Your task to perform on an android device: change the upload size in google photos Image 0: 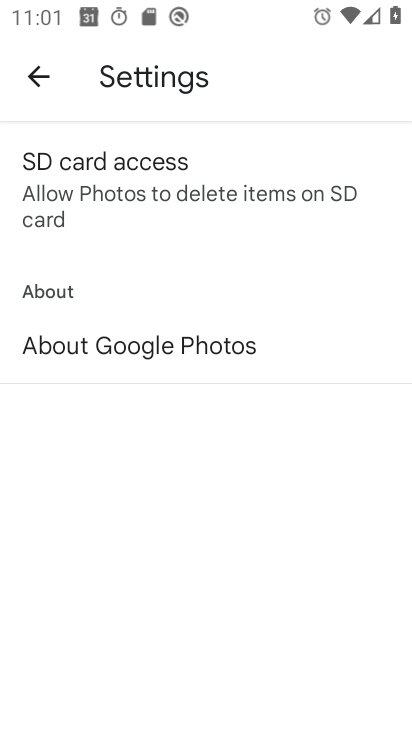
Step 0: click (28, 79)
Your task to perform on an android device: change the upload size in google photos Image 1: 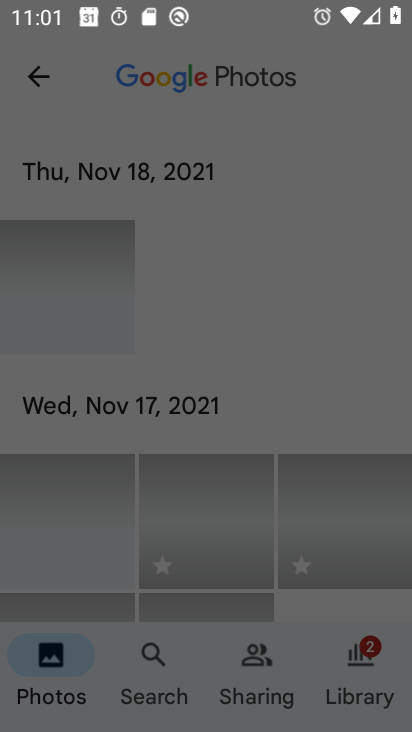
Step 1: press home button
Your task to perform on an android device: change the upload size in google photos Image 2: 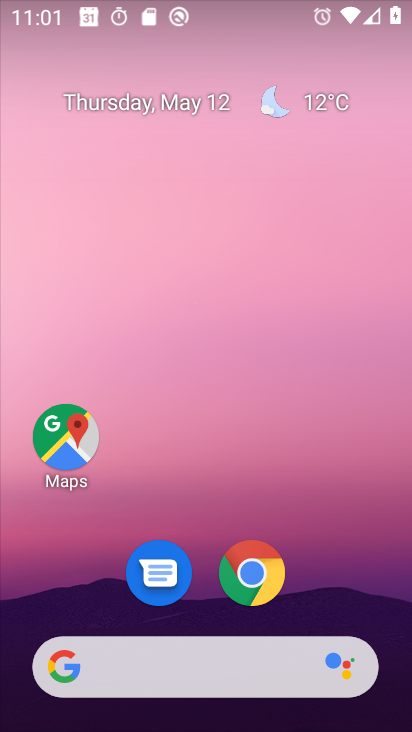
Step 2: drag from (399, 658) to (378, 324)
Your task to perform on an android device: change the upload size in google photos Image 3: 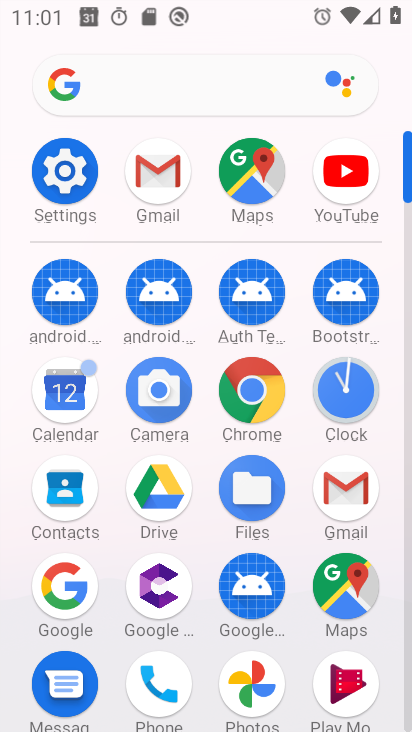
Step 3: click (248, 693)
Your task to perform on an android device: change the upload size in google photos Image 4: 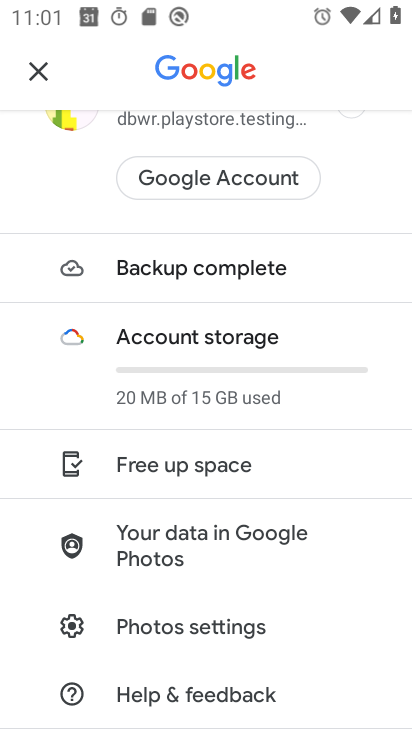
Step 4: task complete